Your task to perform on an android device: Go to sound settings Image 0: 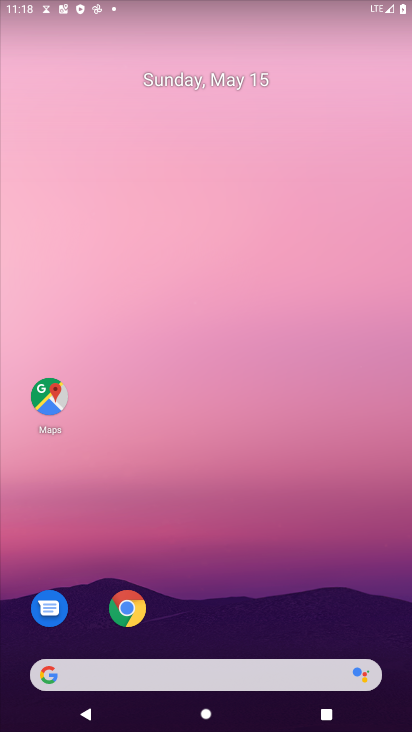
Step 0: drag from (290, 552) to (237, 103)
Your task to perform on an android device: Go to sound settings Image 1: 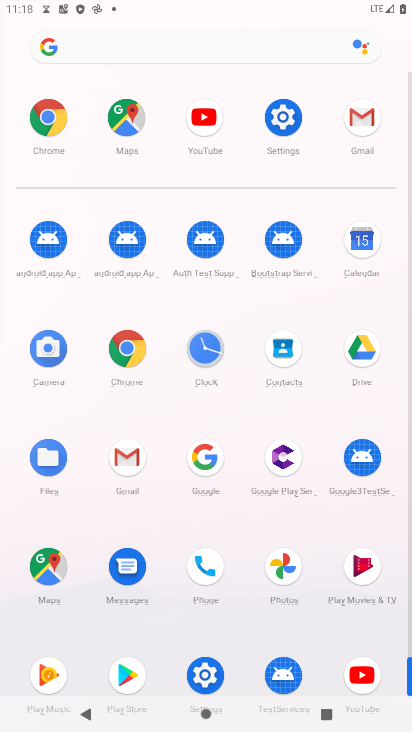
Step 1: click (272, 118)
Your task to perform on an android device: Go to sound settings Image 2: 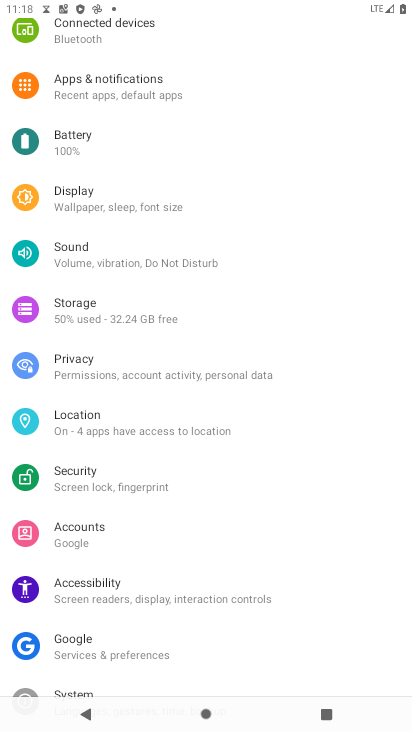
Step 2: task complete